Your task to perform on an android device: visit the assistant section in the google photos Image 0: 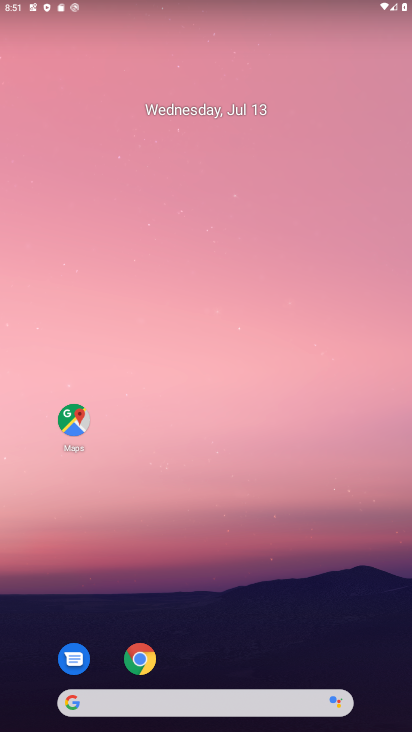
Step 0: drag from (219, 433) to (230, 184)
Your task to perform on an android device: visit the assistant section in the google photos Image 1: 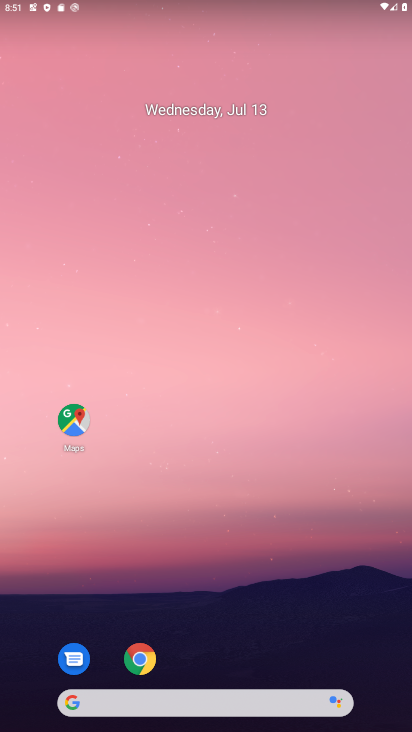
Step 1: drag from (232, 659) to (243, 142)
Your task to perform on an android device: visit the assistant section in the google photos Image 2: 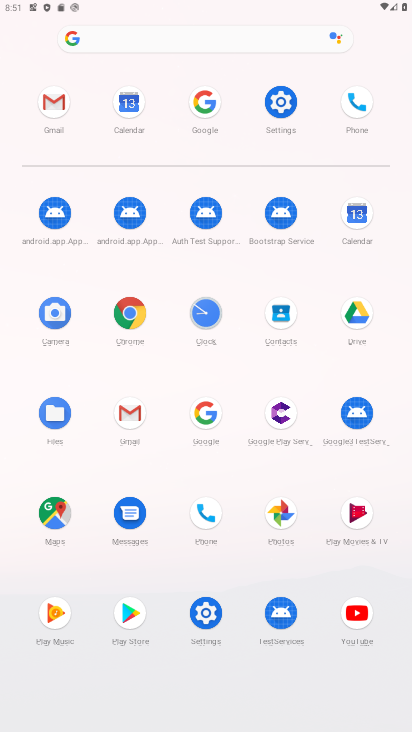
Step 2: click (259, 516)
Your task to perform on an android device: visit the assistant section in the google photos Image 3: 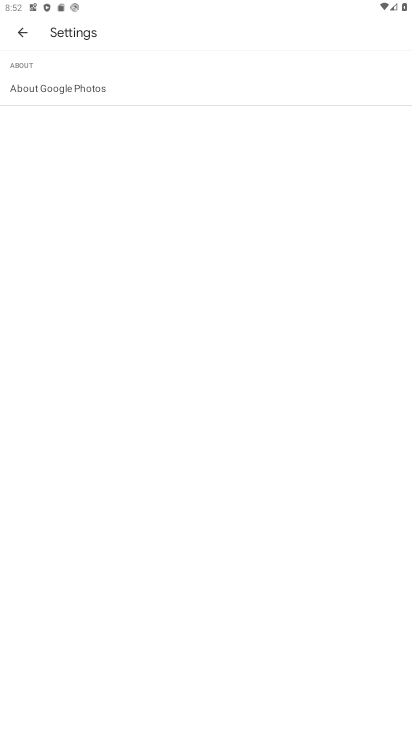
Step 3: click (21, 32)
Your task to perform on an android device: visit the assistant section in the google photos Image 4: 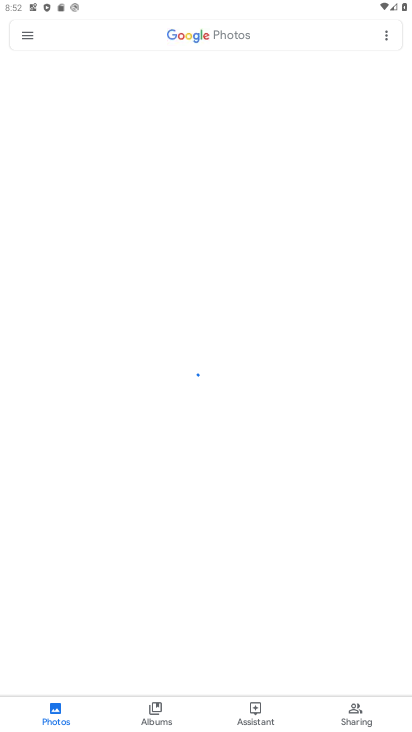
Step 4: click (258, 719)
Your task to perform on an android device: visit the assistant section in the google photos Image 5: 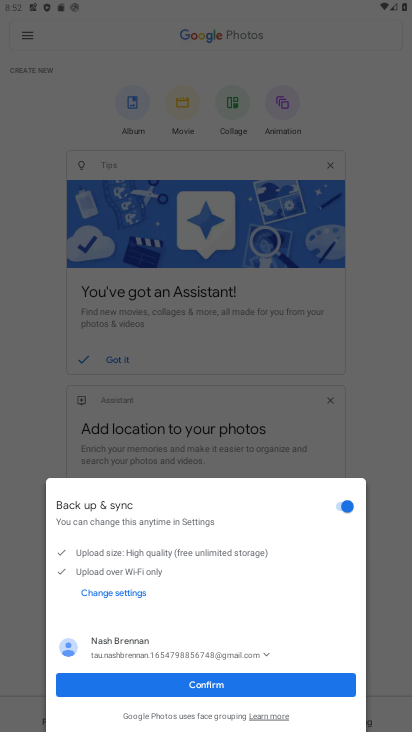
Step 5: task complete